Your task to perform on an android device: What is the news today? Image 0: 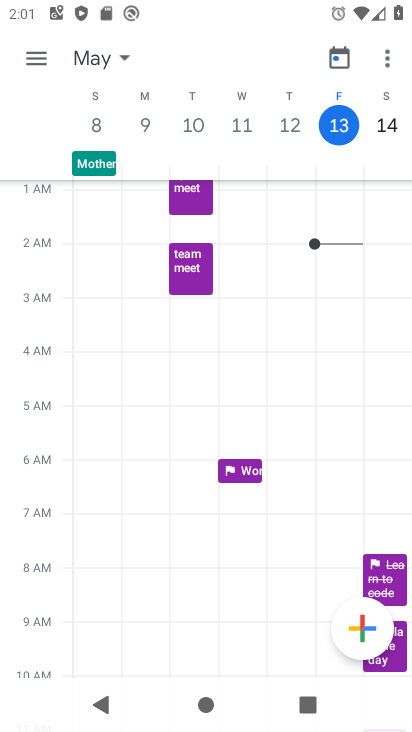
Step 0: press home button
Your task to perform on an android device: What is the news today? Image 1: 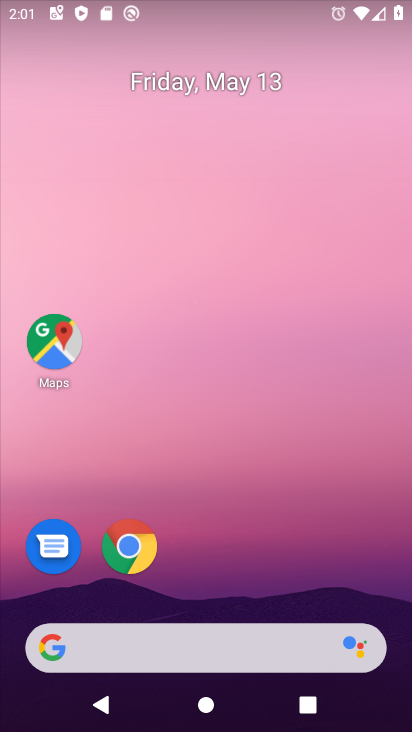
Step 1: drag from (269, 594) to (224, 100)
Your task to perform on an android device: What is the news today? Image 2: 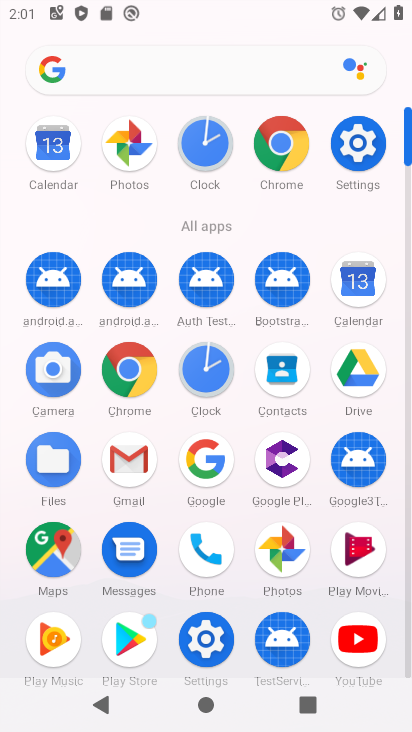
Step 2: click (271, 125)
Your task to perform on an android device: What is the news today? Image 3: 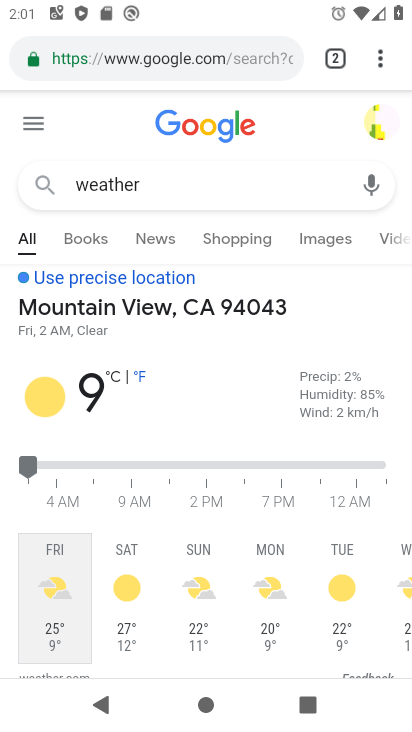
Step 3: click (158, 187)
Your task to perform on an android device: What is the news today? Image 4: 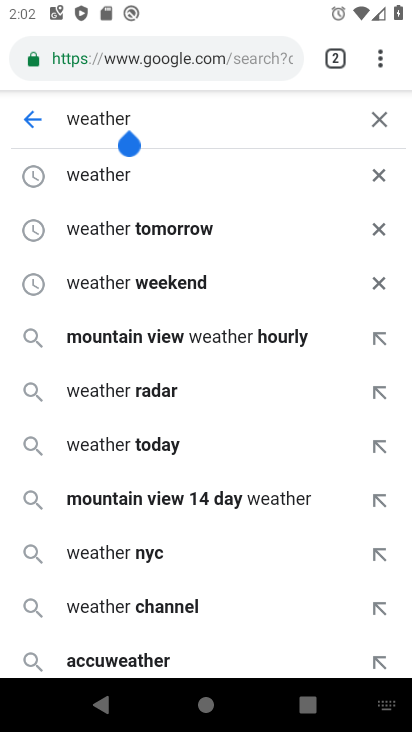
Step 4: click (386, 113)
Your task to perform on an android device: What is the news today? Image 5: 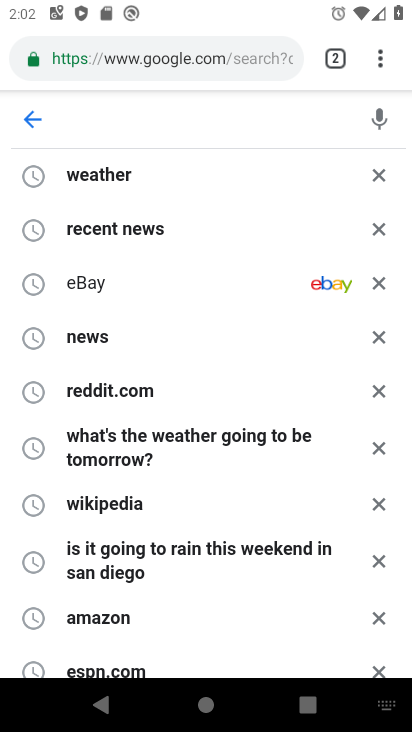
Step 5: click (94, 330)
Your task to perform on an android device: What is the news today? Image 6: 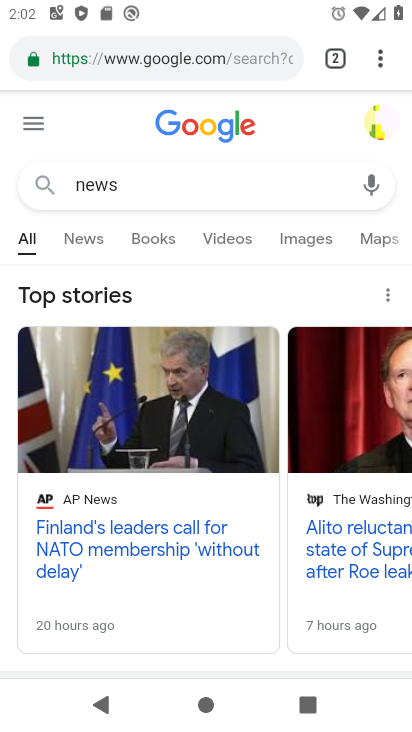
Step 6: click (95, 241)
Your task to perform on an android device: What is the news today? Image 7: 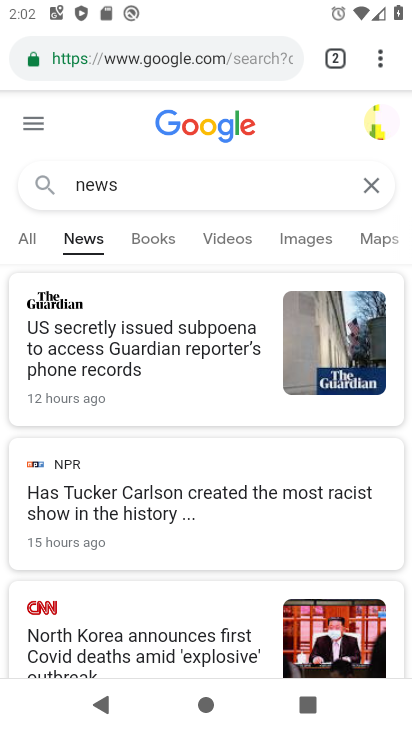
Step 7: task complete